Your task to perform on an android device: open app "Speedtest by Ookla" Image 0: 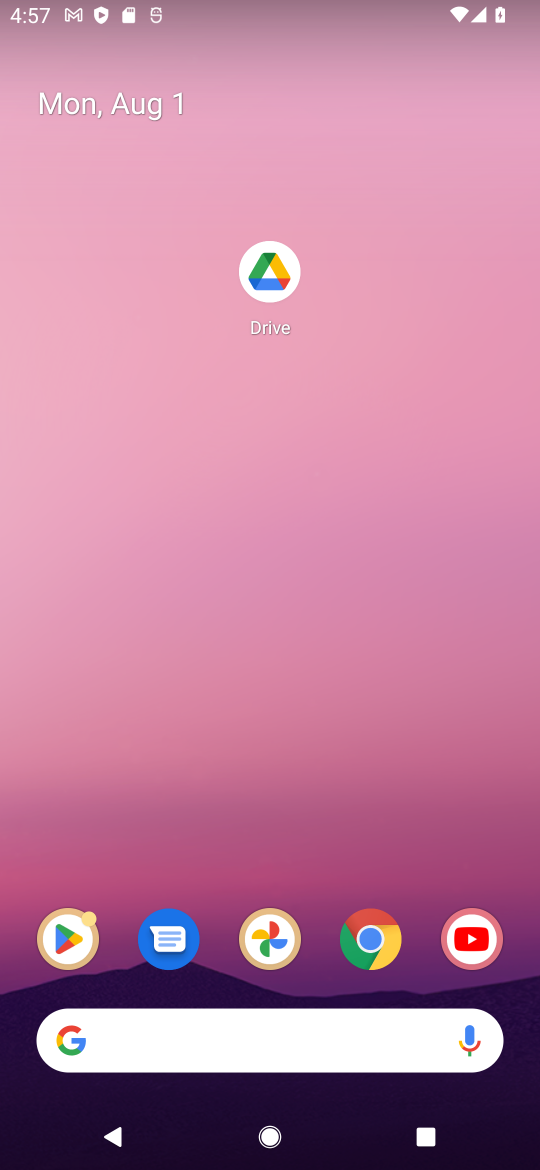
Step 0: click (54, 955)
Your task to perform on an android device: open app "Speedtest by Ookla" Image 1: 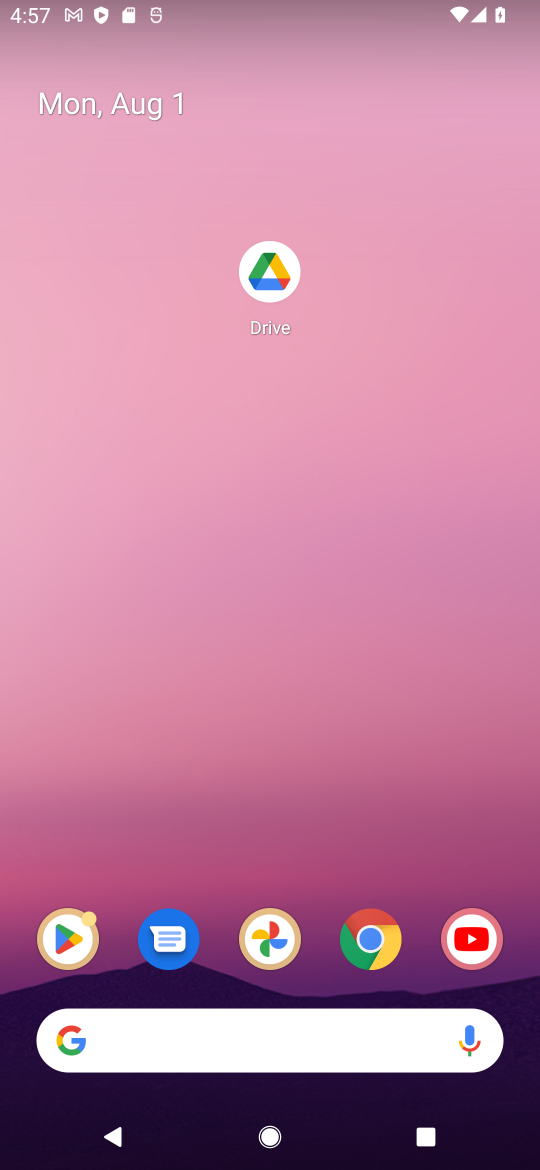
Step 1: click (80, 957)
Your task to perform on an android device: open app "Speedtest by Ookla" Image 2: 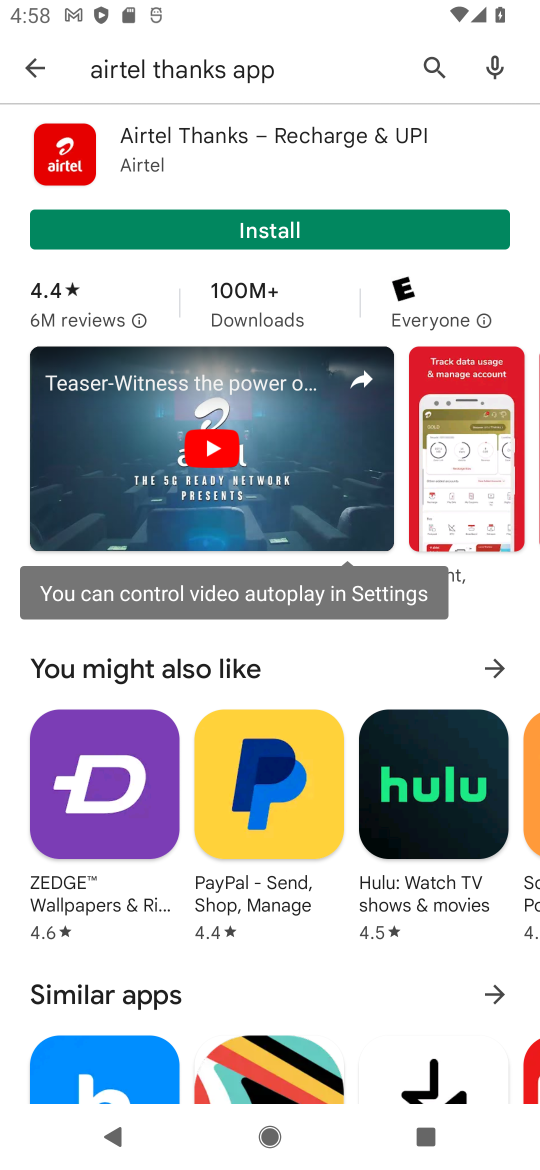
Step 2: click (437, 58)
Your task to perform on an android device: open app "Speedtest by Ookla" Image 3: 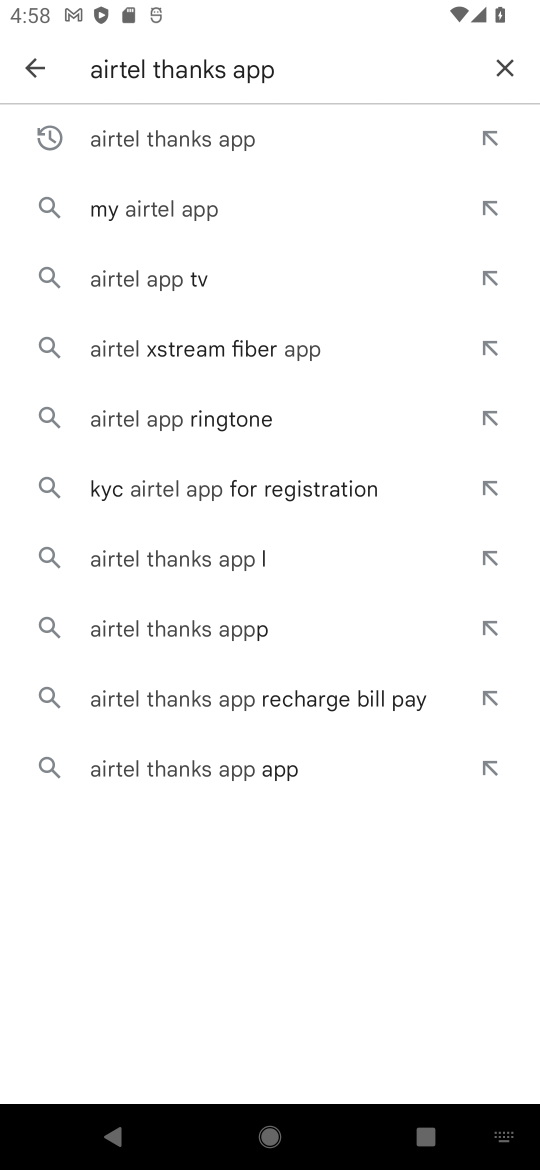
Step 3: click (516, 75)
Your task to perform on an android device: open app "Speedtest by Ookla" Image 4: 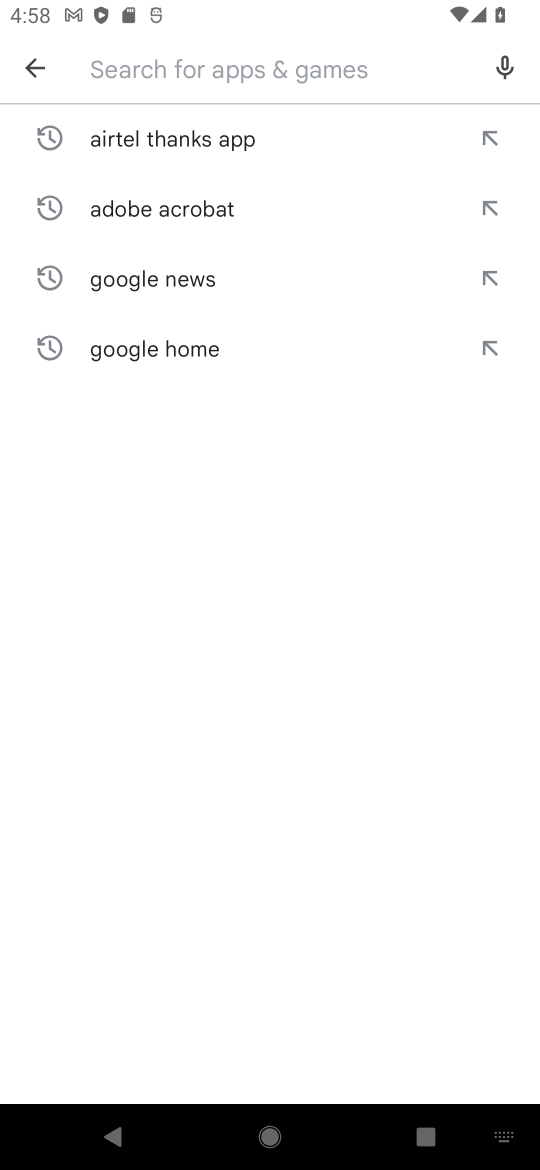
Step 4: type "speedtrst by ookla"
Your task to perform on an android device: open app "Speedtest by Ookla" Image 5: 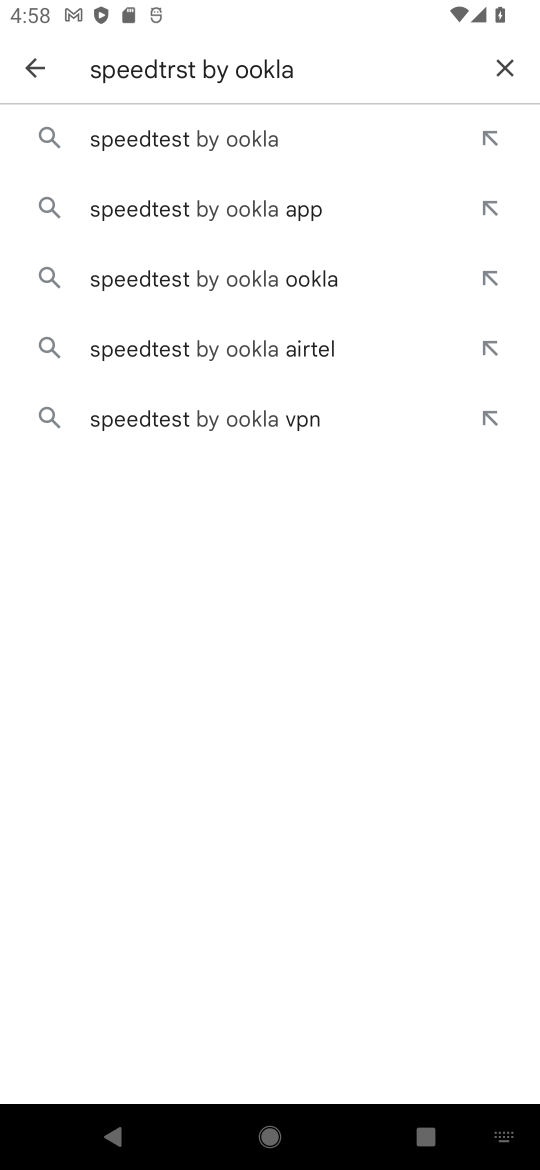
Step 5: click (246, 134)
Your task to perform on an android device: open app "Speedtest by Ookla" Image 6: 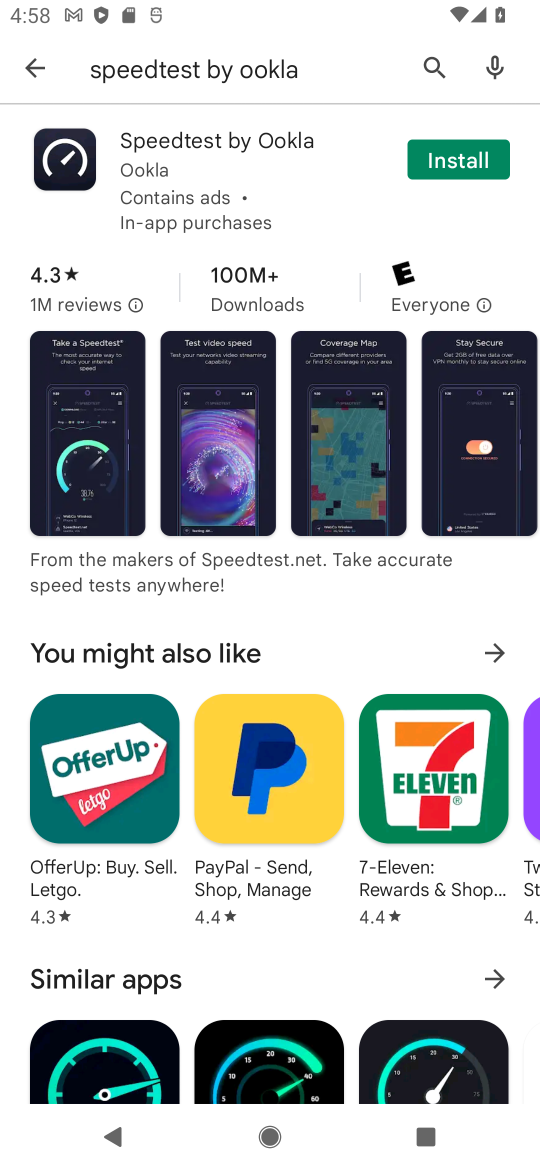
Step 6: task complete